Your task to perform on an android device: Check the weather Image 0: 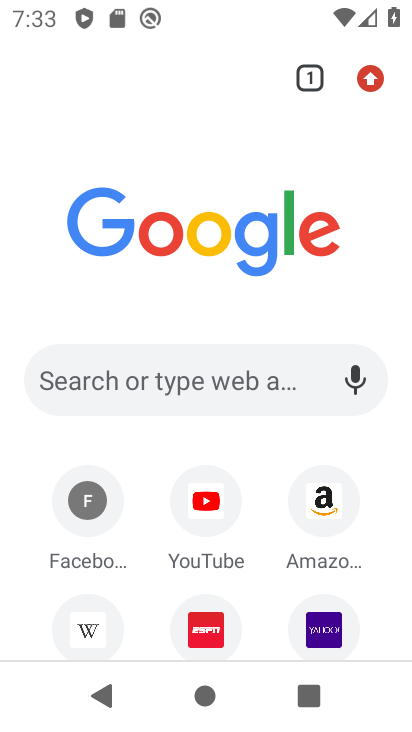
Step 0: press home button
Your task to perform on an android device: Check the weather Image 1: 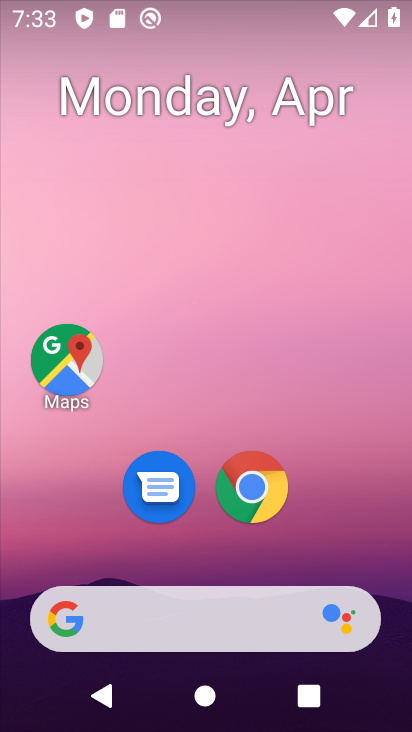
Step 1: click (216, 628)
Your task to perform on an android device: Check the weather Image 2: 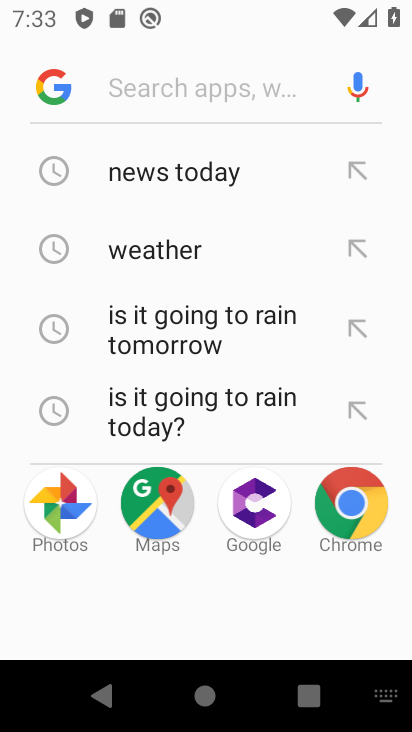
Step 2: click (164, 244)
Your task to perform on an android device: Check the weather Image 3: 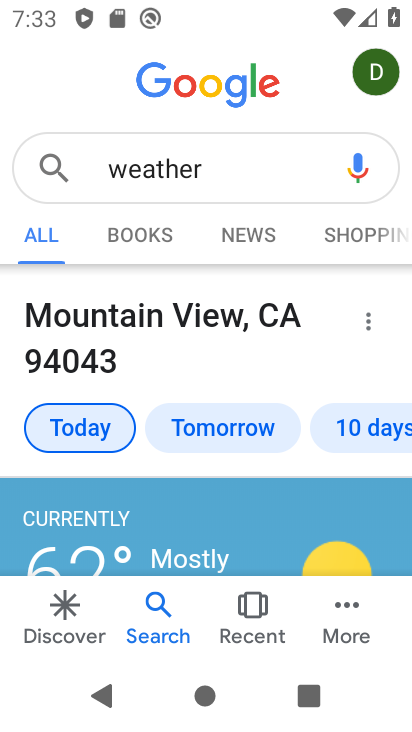
Step 3: task complete